Your task to perform on an android device: Open Google Image 0: 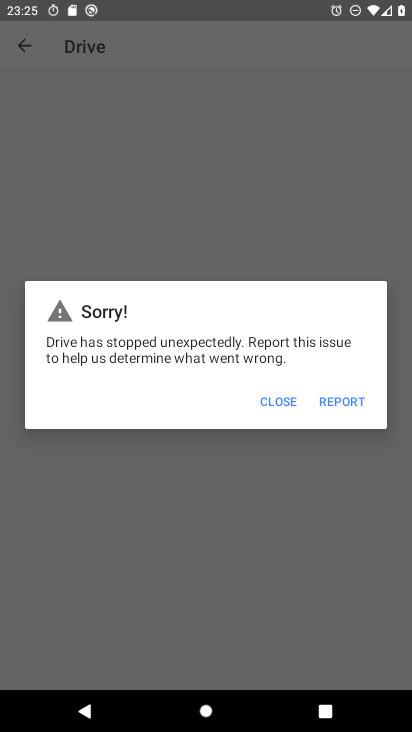
Step 0: press home button
Your task to perform on an android device: Open Google Image 1: 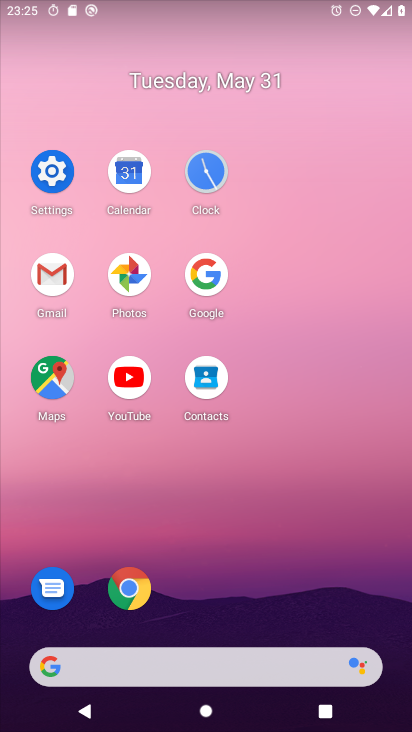
Step 1: click (213, 268)
Your task to perform on an android device: Open Google Image 2: 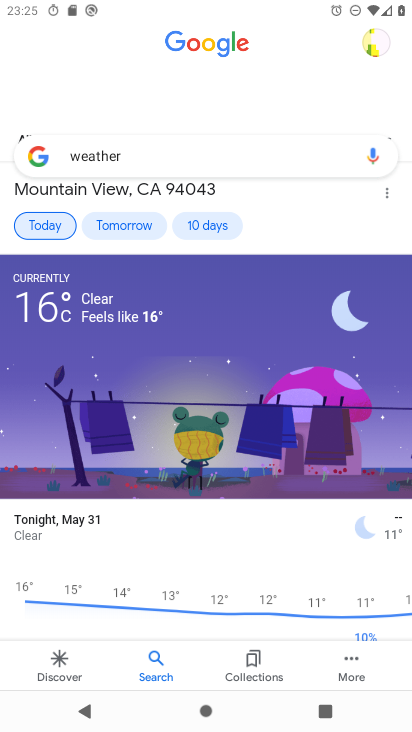
Step 2: task complete